Your task to perform on an android device: Open notification settings Image 0: 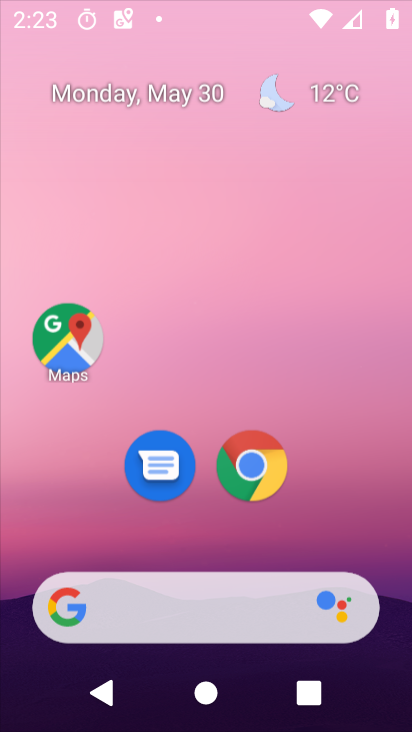
Step 0: click (356, 249)
Your task to perform on an android device: Open notification settings Image 1: 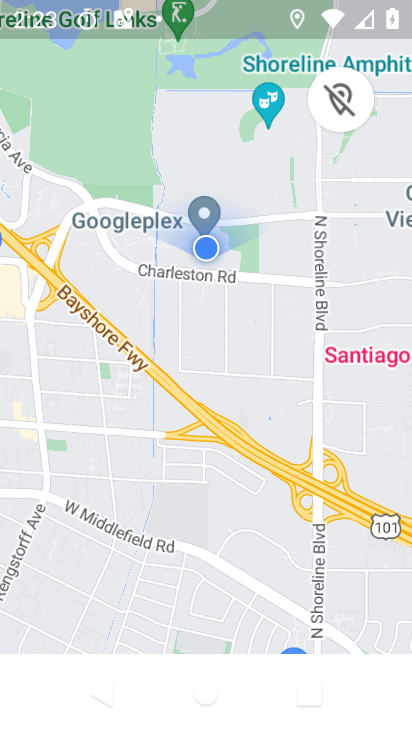
Step 1: press home button
Your task to perform on an android device: Open notification settings Image 2: 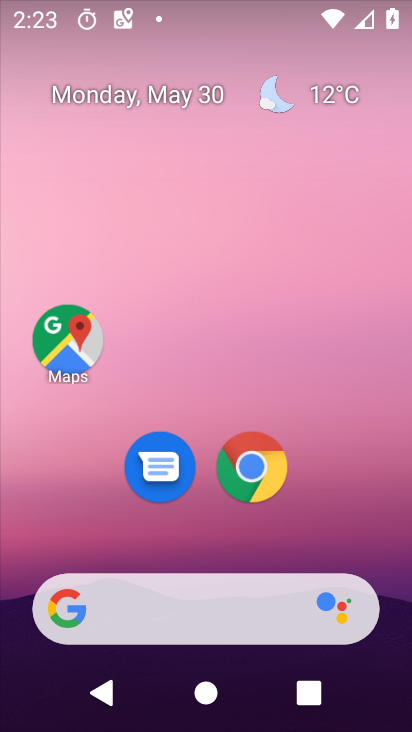
Step 2: drag from (391, 647) to (375, 302)
Your task to perform on an android device: Open notification settings Image 3: 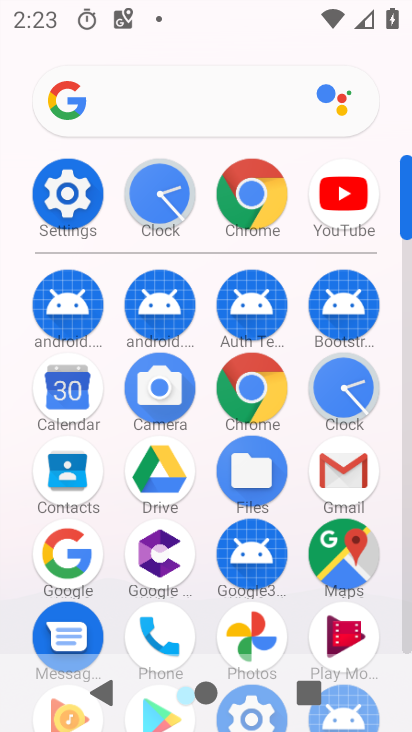
Step 3: click (80, 195)
Your task to perform on an android device: Open notification settings Image 4: 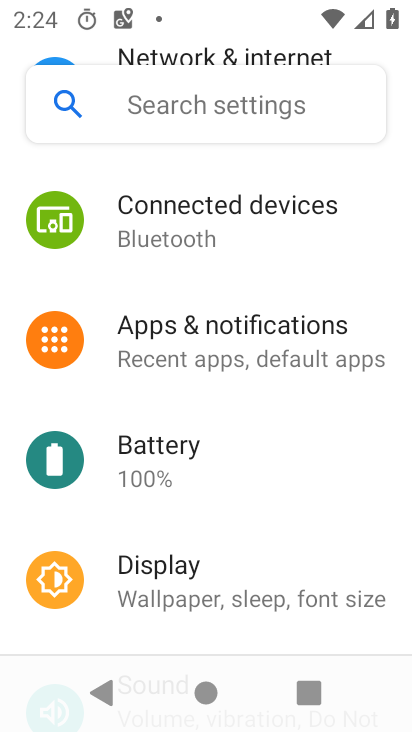
Step 4: click (232, 340)
Your task to perform on an android device: Open notification settings Image 5: 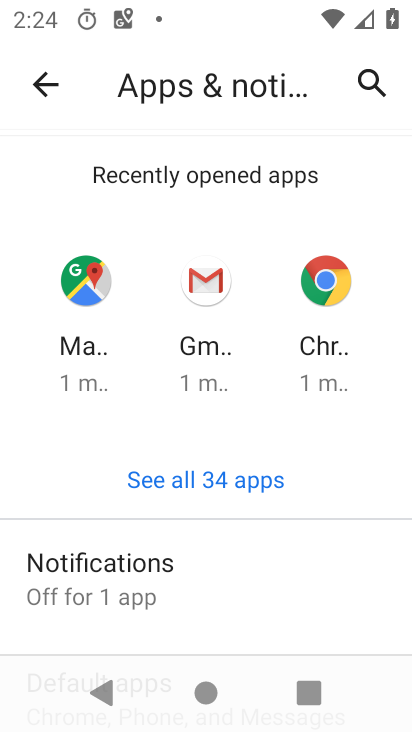
Step 5: drag from (239, 609) to (279, 302)
Your task to perform on an android device: Open notification settings Image 6: 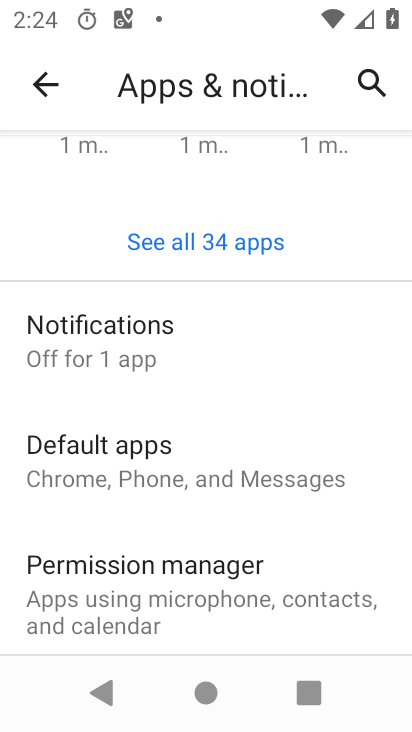
Step 6: click (101, 333)
Your task to perform on an android device: Open notification settings Image 7: 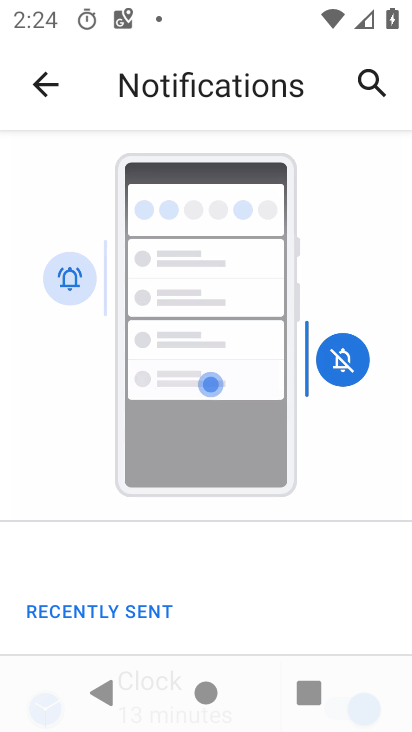
Step 7: drag from (294, 590) to (314, 290)
Your task to perform on an android device: Open notification settings Image 8: 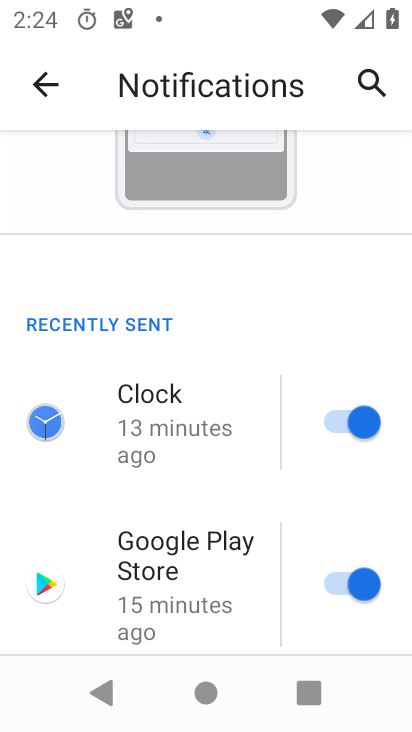
Step 8: drag from (261, 621) to (268, 317)
Your task to perform on an android device: Open notification settings Image 9: 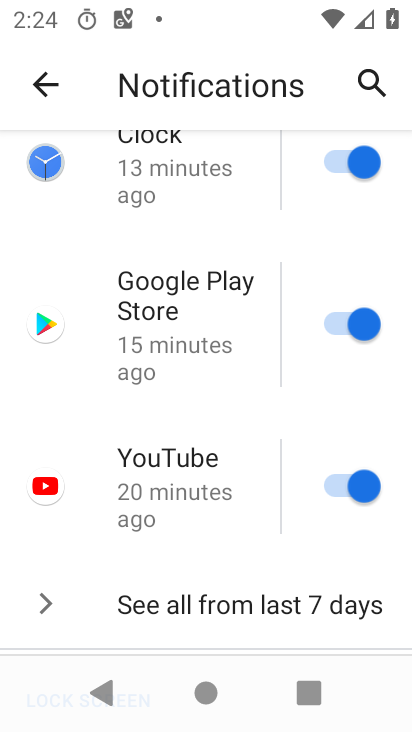
Step 9: drag from (261, 536) to (257, 377)
Your task to perform on an android device: Open notification settings Image 10: 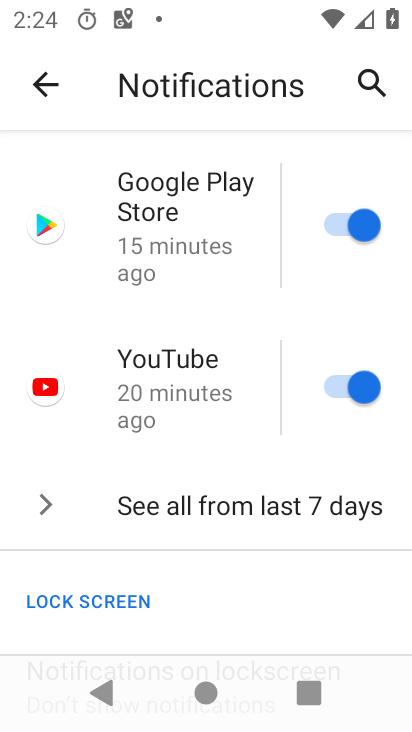
Step 10: drag from (233, 400) to (236, 352)
Your task to perform on an android device: Open notification settings Image 11: 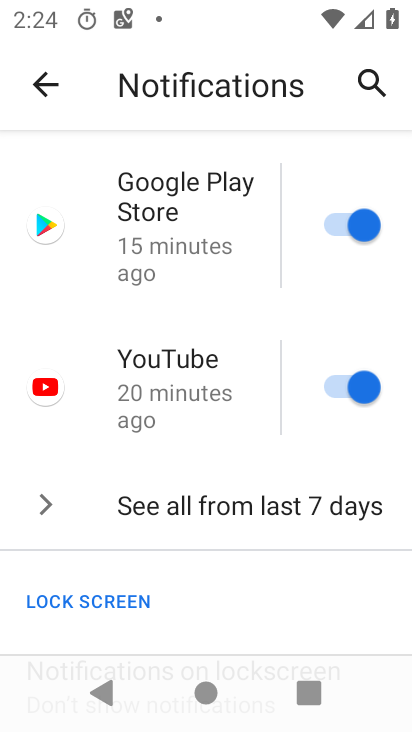
Step 11: drag from (210, 539) to (242, 325)
Your task to perform on an android device: Open notification settings Image 12: 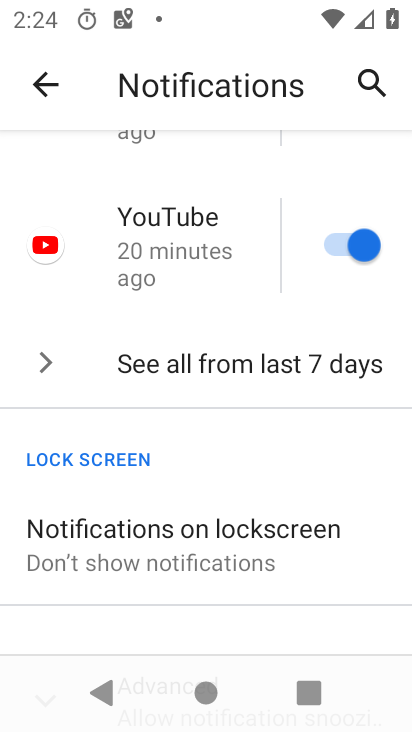
Step 12: drag from (239, 592) to (258, 320)
Your task to perform on an android device: Open notification settings Image 13: 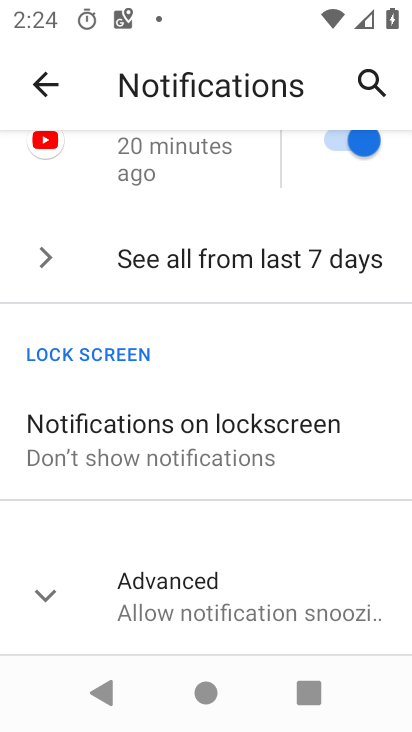
Step 13: click (47, 594)
Your task to perform on an android device: Open notification settings Image 14: 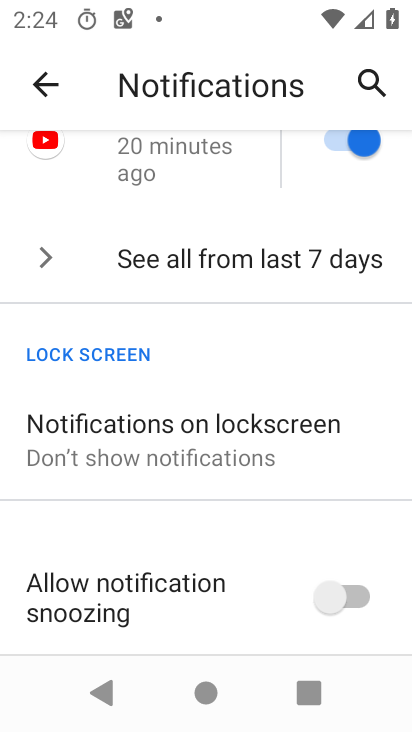
Step 14: task complete